Your task to perform on an android device: turn on showing notifications on the lock screen Image 0: 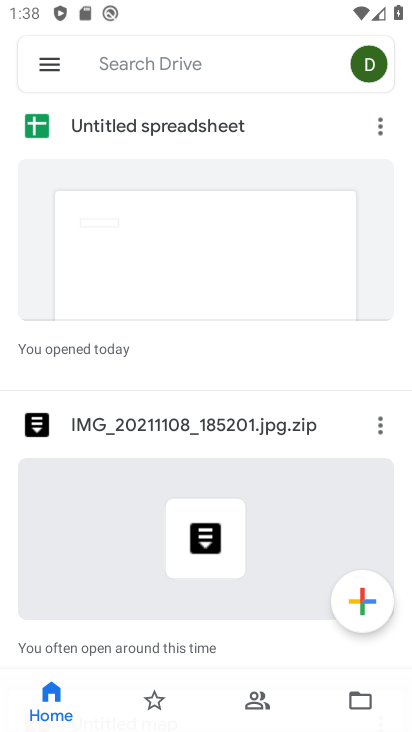
Step 0: press home button
Your task to perform on an android device: turn on showing notifications on the lock screen Image 1: 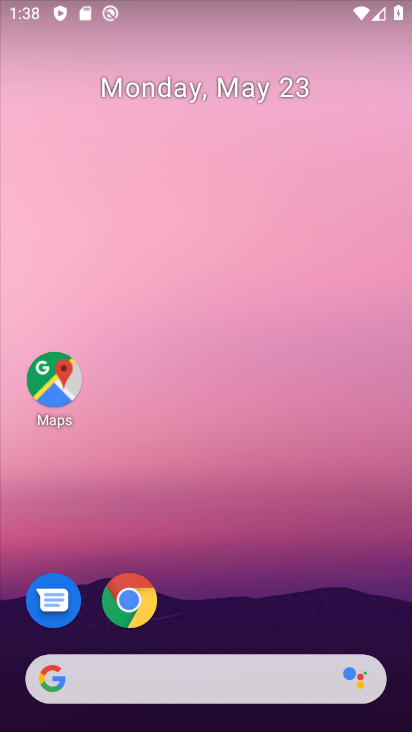
Step 1: drag from (248, 638) to (205, 109)
Your task to perform on an android device: turn on showing notifications on the lock screen Image 2: 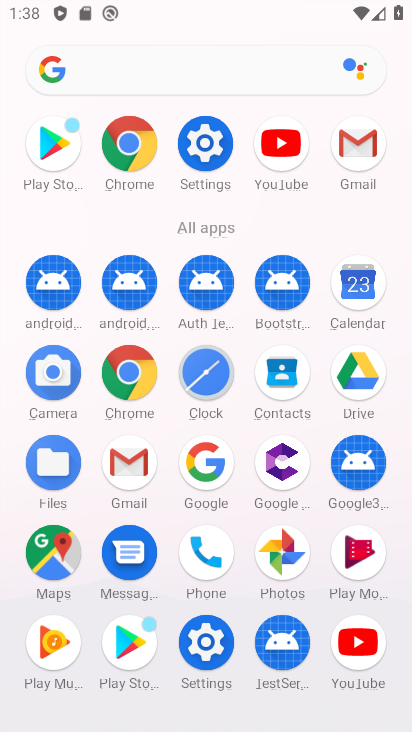
Step 2: click (204, 128)
Your task to perform on an android device: turn on showing notifications on the lock screen Image 3: 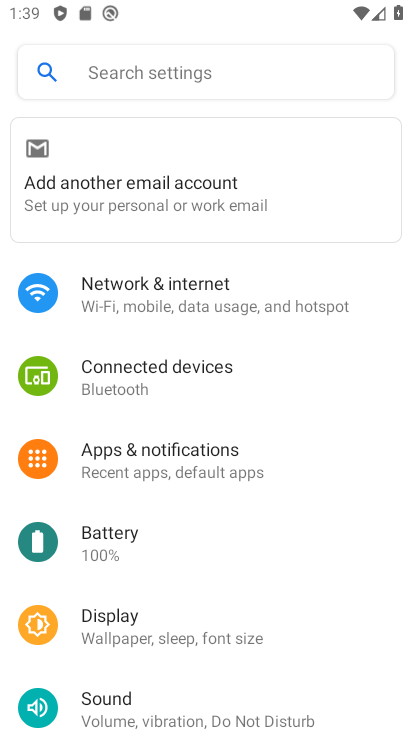
Step 3: click (216, 467)
Your task to perform on an android device: turn on showing notifications on the lock screen Image 4: 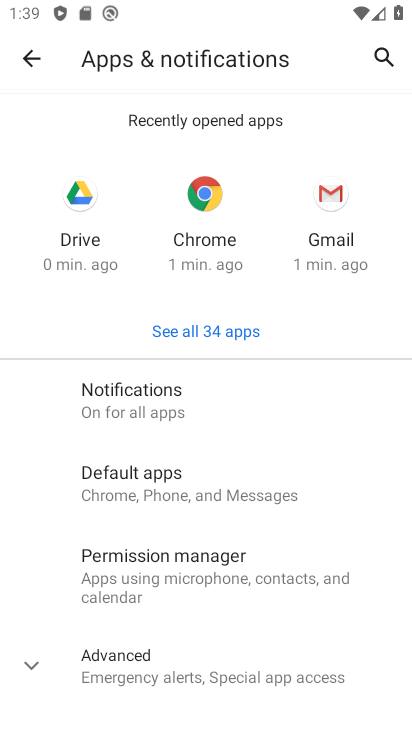
Step 4: click (186, 388)
Your task to perform on an android device: turn on showing notifications on the lock screen Image 5: 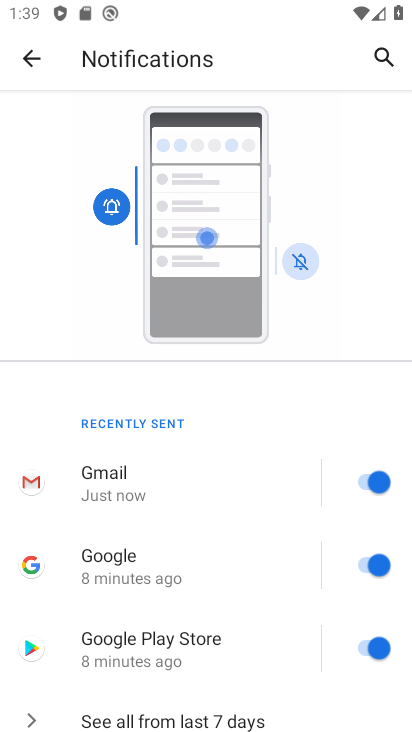
Step 5: drag from (229, 648) to (225, 239)
Your task to perform on an android device: turn on showing notifications on the lock screen Image 6: 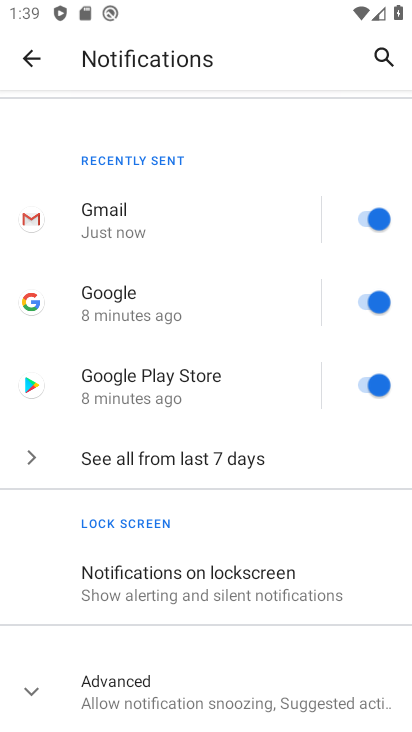
Step 6: click (265, 587)
Your task to perform on an android device: turn on showing notifications on the lock screen Image 7: 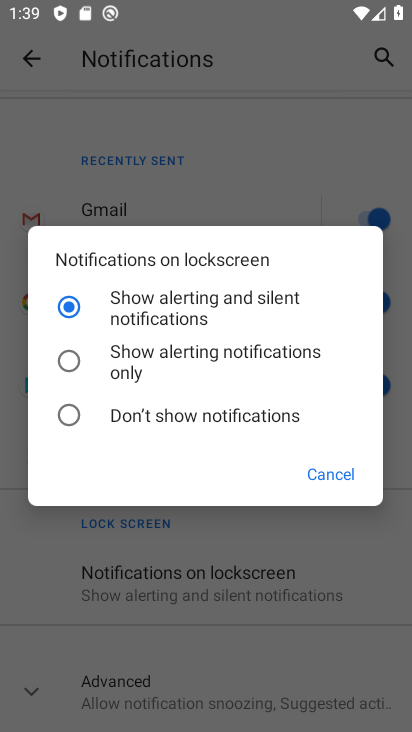
Step 7: task complete